Your task to perform on an android device: toggle notification dots Image 0: 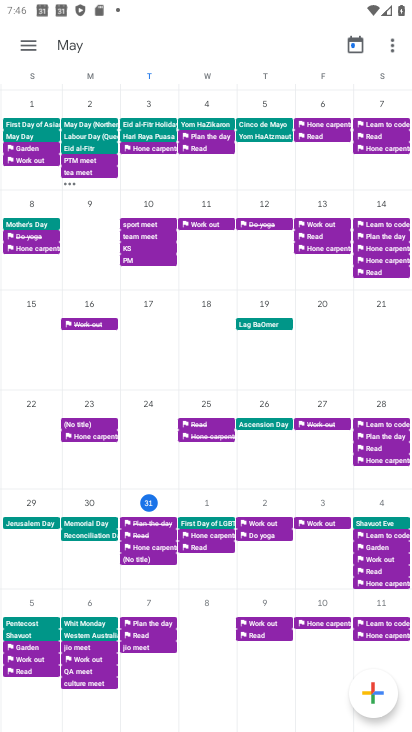
Step 0: press home button
Your task to perform on an android device: toggle notification dots Image 1: 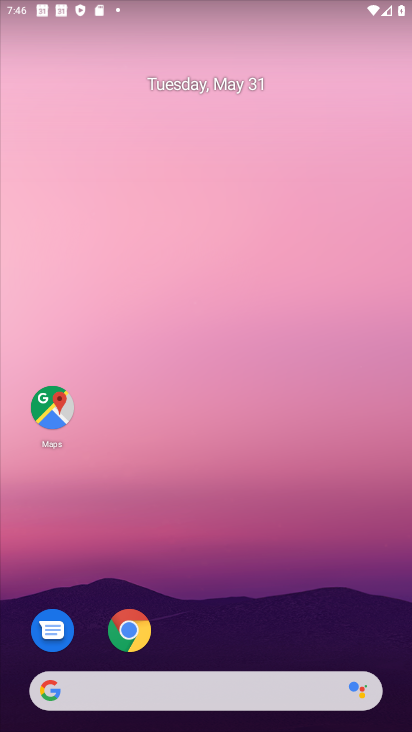
Step 1: drag from (243, 530) to (243, 189)
Your task to perform on an android device: toggle notification dots Image 2: 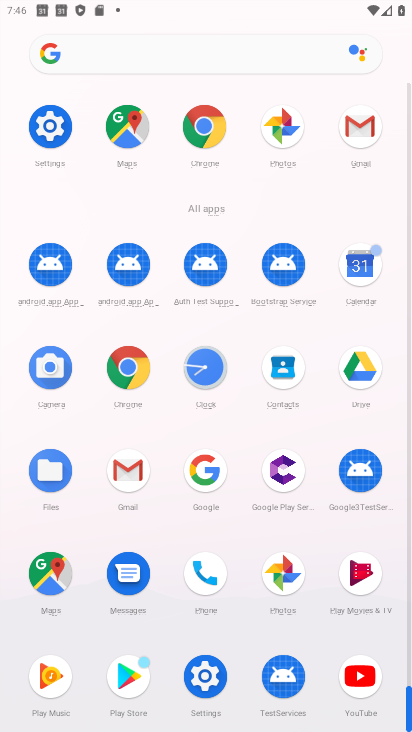
Step 2: click (51, 116)
Your task to perform on an android device: toggle notification dots Image 3: 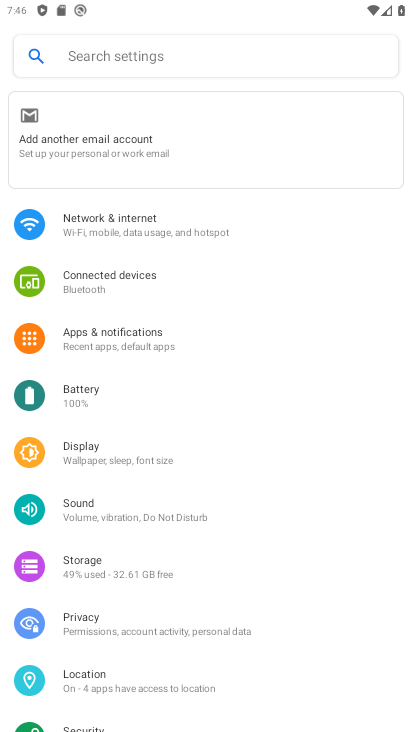
Step 3: click (137, 45)
Your task to perform on an android device: toggle notification dots Image 4: 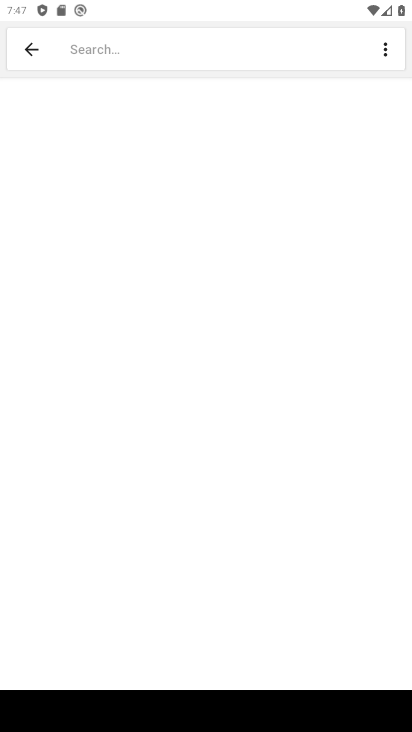
Step 4: click (151, 44)
Your task to perform on an android device: toggle notification dots Image 5: 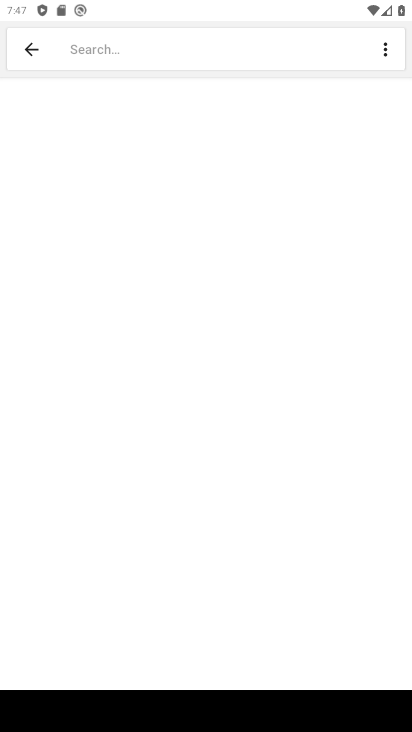
Step 5: type "notification dots"
Your task to perform on an android device: toggle notification dots Image 6: 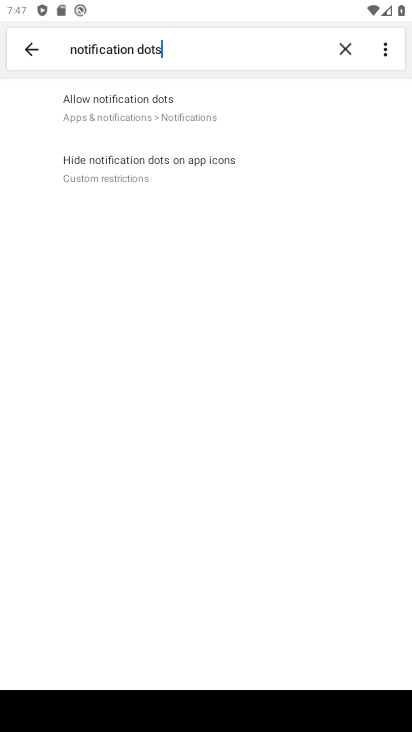
Step 6: click (134, 88)
Your task to perform on an android device: toggle notification dots Image 7: 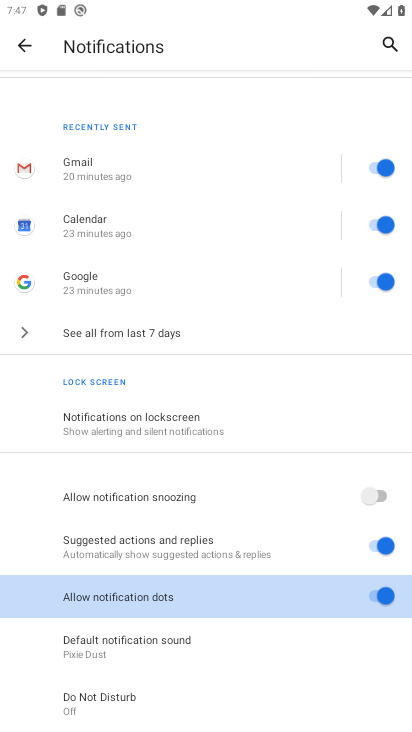
Step 7: task complete